Your task to perform on an android device: turn off priority inbox in the gmail app Image 0: 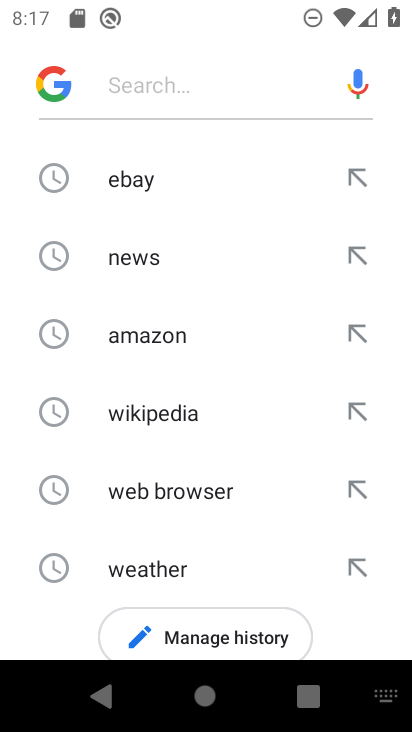
Step 0: press home button
Your task to perform on an android device: turn off priority inbox in the gmail app Image 1: 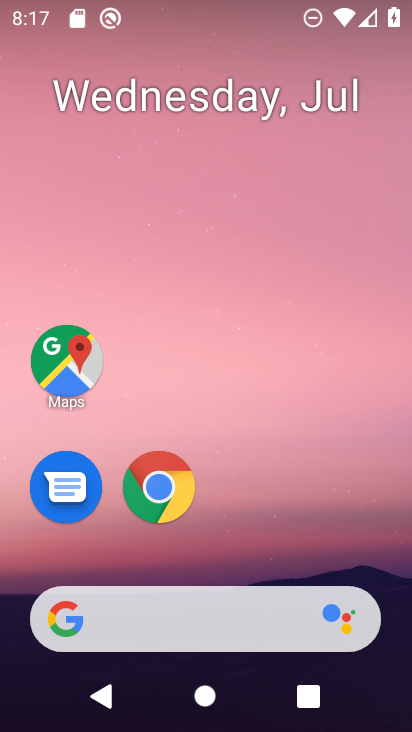
Step 1: drag from (378, 542) to (382, 85)
Your task to perform on an android device: turn off priority inbox in the gmail app Image 2: 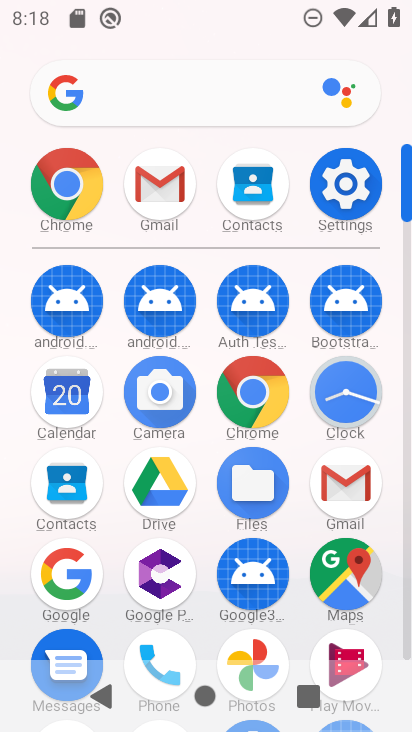
Step 2: click (357, 477)
Your task to perform on an android device: turn off priority inbox in the gmail app Image 3: 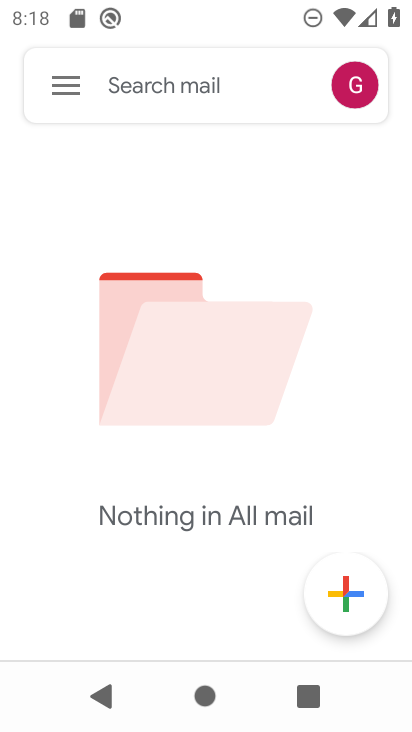
Step 3: click (69, 86)
Your task to perform on an android device: turn off priority inbox in the gmail app Image 4: 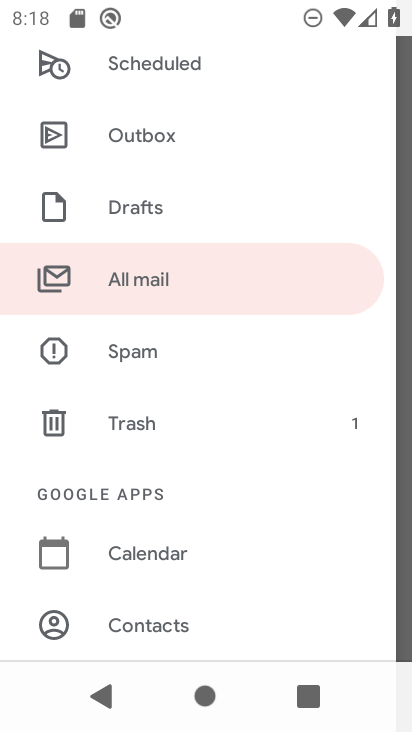
Step 4: drag from (255, 164) to (266, 241)
Your task to perform on an android device: turn off priority inbox in the gmail app Image 5: 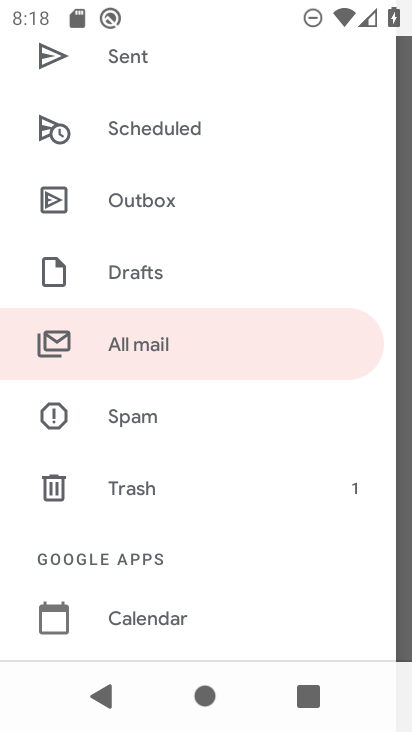
Step 5: drag from (337, 157) to (365, 275)
Your task to perform on an android device: turn off priority inbox in the gmail app Image 6: 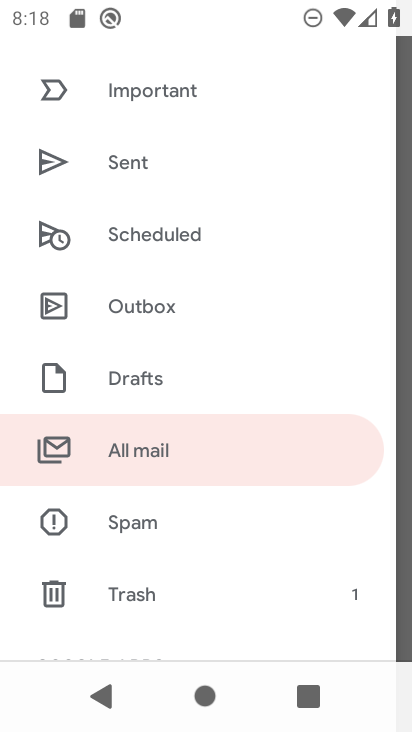
Step 6: drag from (324, 118) to (319, 341)
Your task to perform on an android device: turn off priority inbox in the gmail app Image 7: 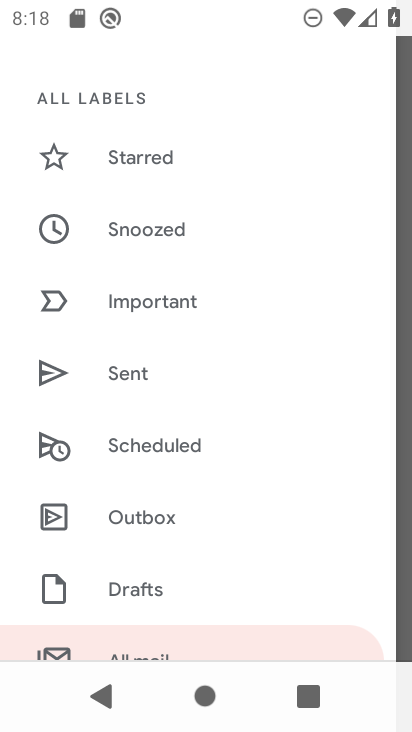
Step 7: drag from (308, 379) to (310, 251)
Your task to perform on an android device: turn off priority inbox in the gmail app Image 8: 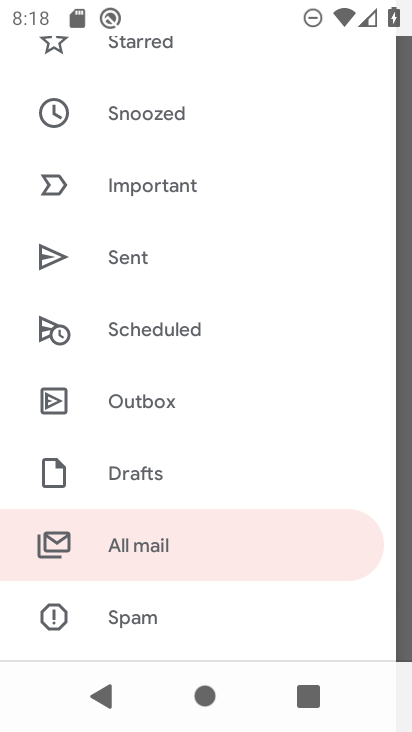
Step 8: drag from (306, 381) to (304, 281)
Your task to perform on an android device: turn off priority inbox in the gmail app Image 9: 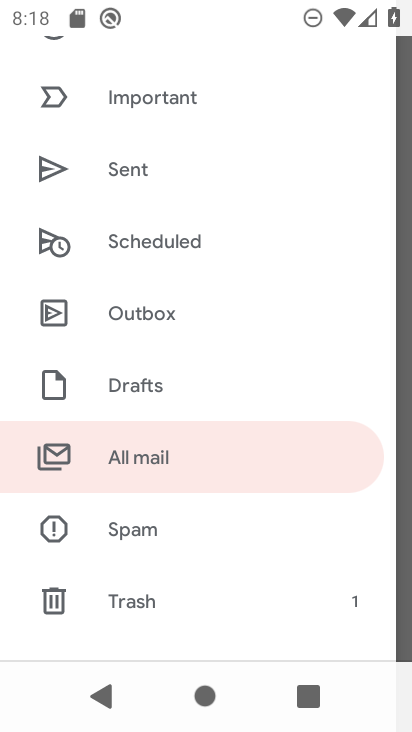
Step 9: drag from (314, 427) to (323, 288)
Your task to perform on an android device: turn off priority inbox in the gmail app Image 10: 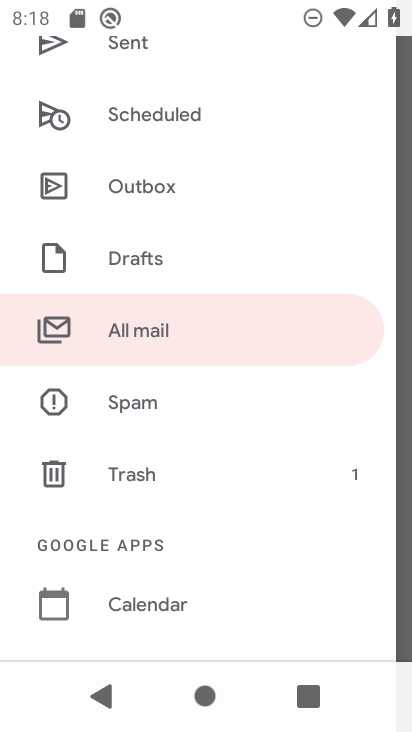
Step 10: drag from (293, 408) to (298, 248)
Your task to perform on an android device: turn off priority inbox in the gmail app Image 11: 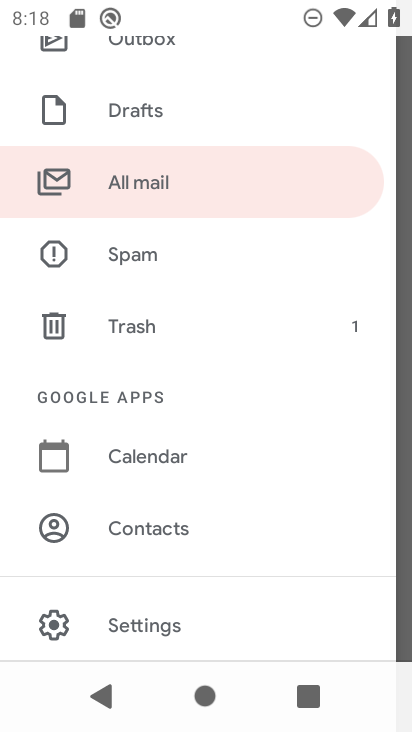
Step 11: drag from (281, 418) to (277, 250)
Your task to perform on an android device: turn off priority inbox in the gmail app Image 12: 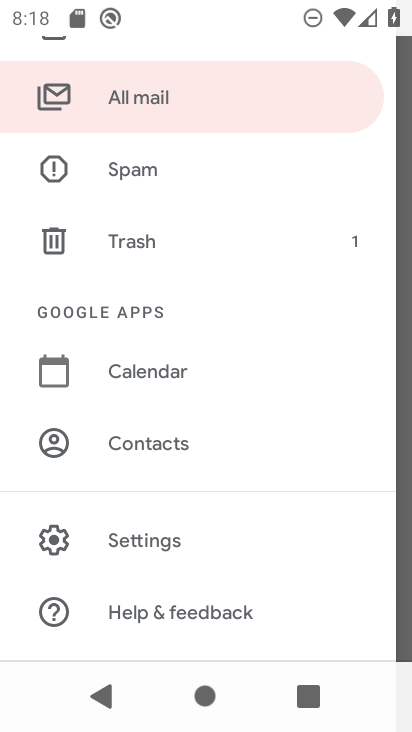
Step 12: click (170, 545)
Your task to perform on an android device: turn off priority inbox in the gmail app Image 13: 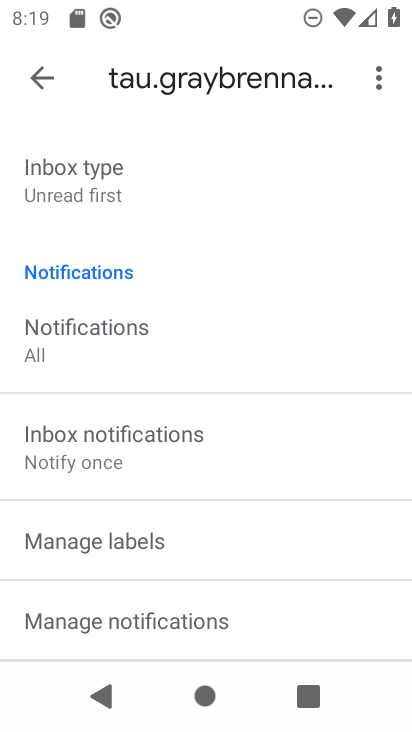
Step 13: task complete